Your task to perform on an android device: Show the shopping cart on amazon.com. Search for "jbl charge 4" on amazon.com, select the first entry, add it to the cart, then select checkout. Image 0: 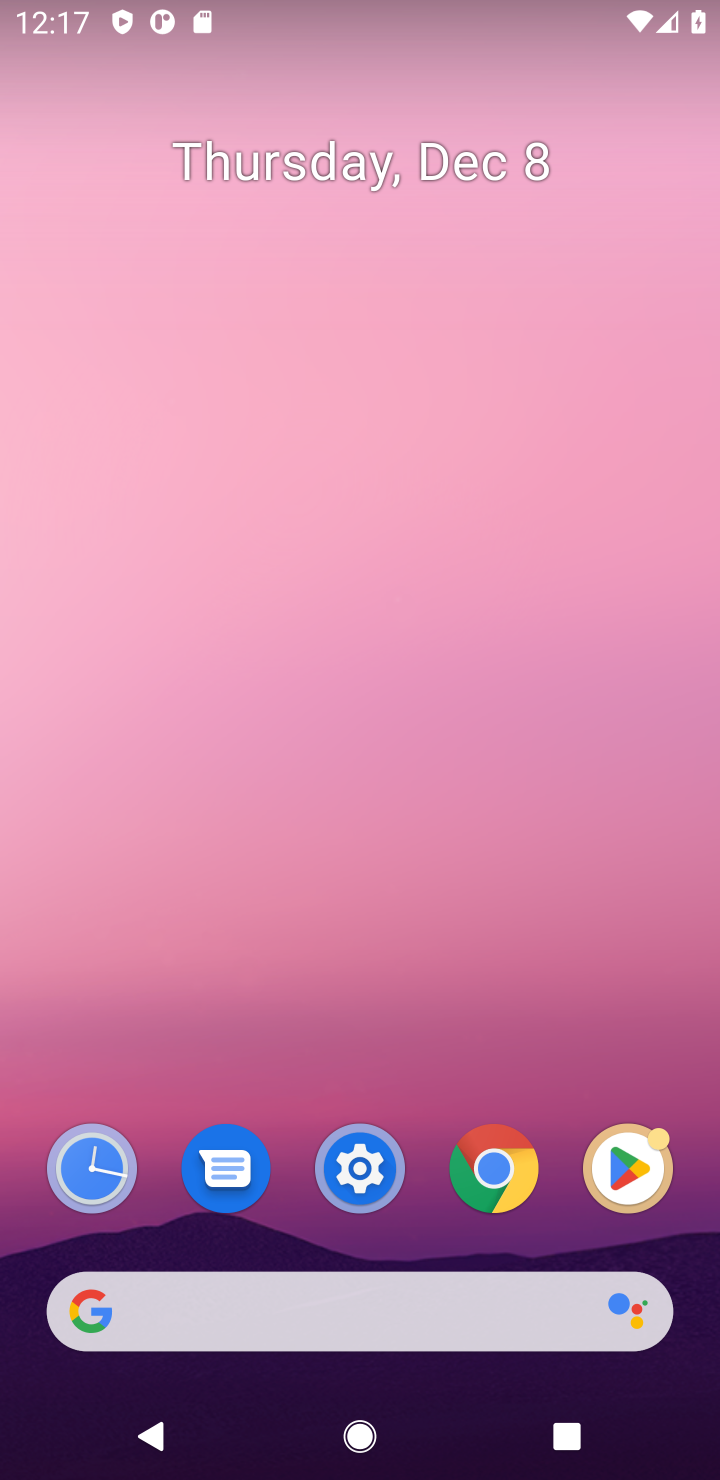
Step 0: drag from (360, 1254) to (380, 201)
Your task to perform on an android device: Show the shopping cart on amazon.com. Search for "jbl charge 4" on amazon.com, select the first entry, add it to the cart, then select checkout. Image 1: 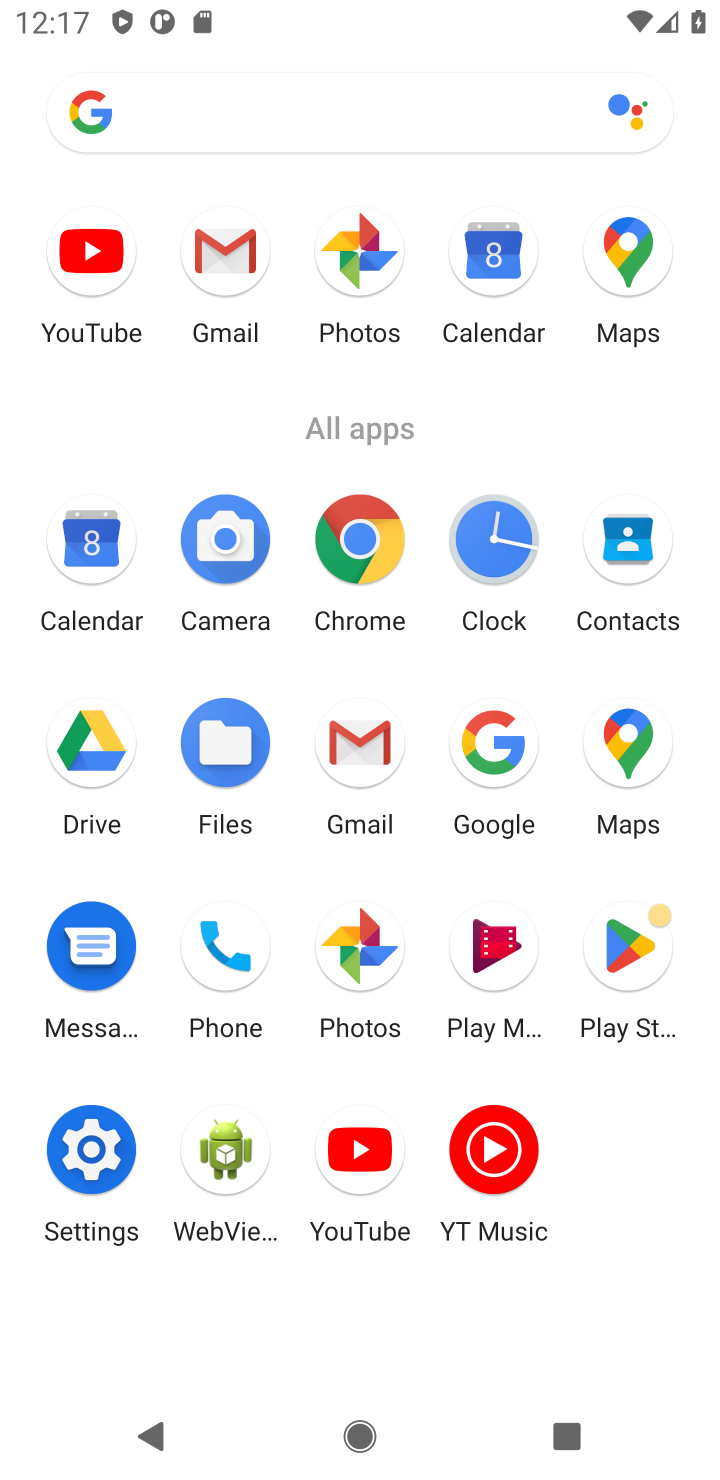
Step 1: click (490, 762)
Your task to perform on an android device: Show the shopping cart on amazon.com. Search for "jbl charge 4" on amazon.com, select the first entry, add it to the cart, then select checkout. Image 2: 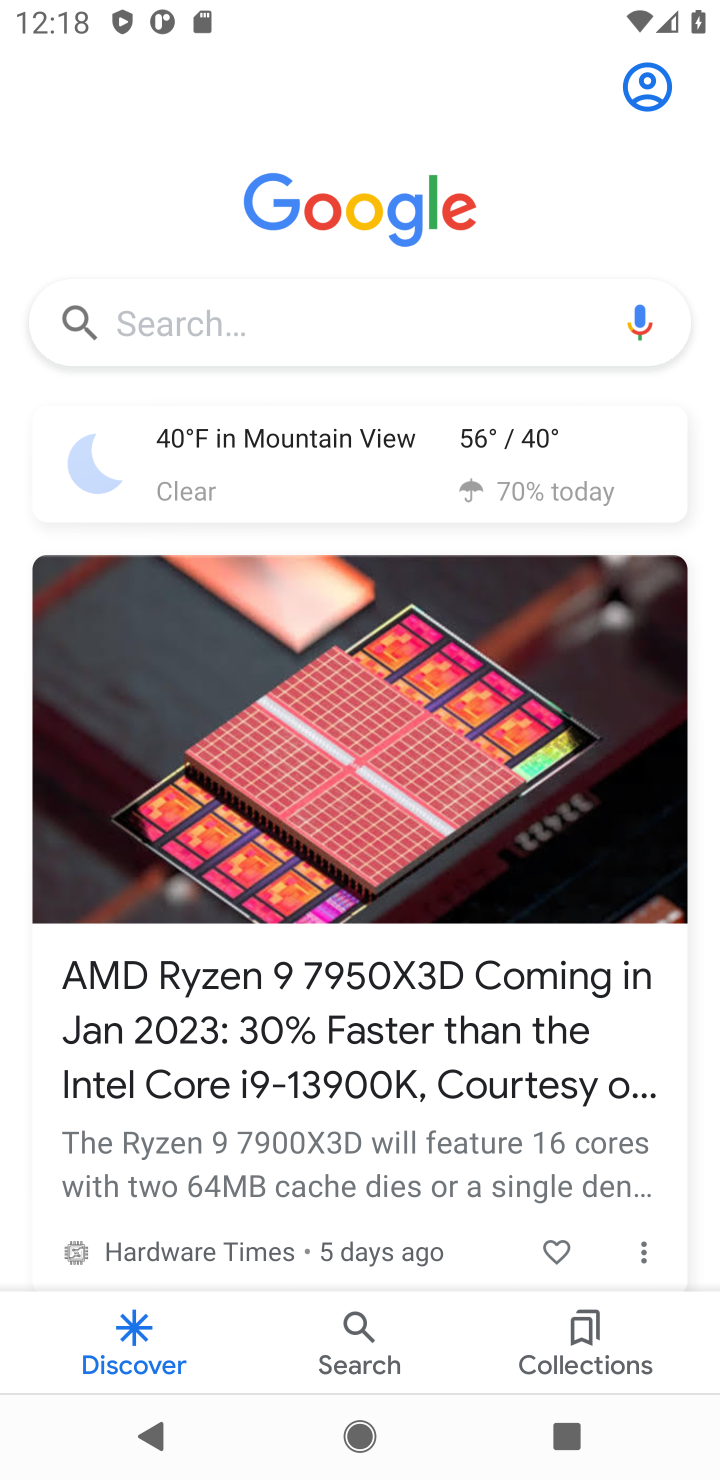
Step 2: click (363, 304)
Your task to perform on an android device: Show the shopping cart on amazon.com. Search for "jbl charge 4" on amazon.com, select the first entry, add it to the cart, then select checkout. Image 3: 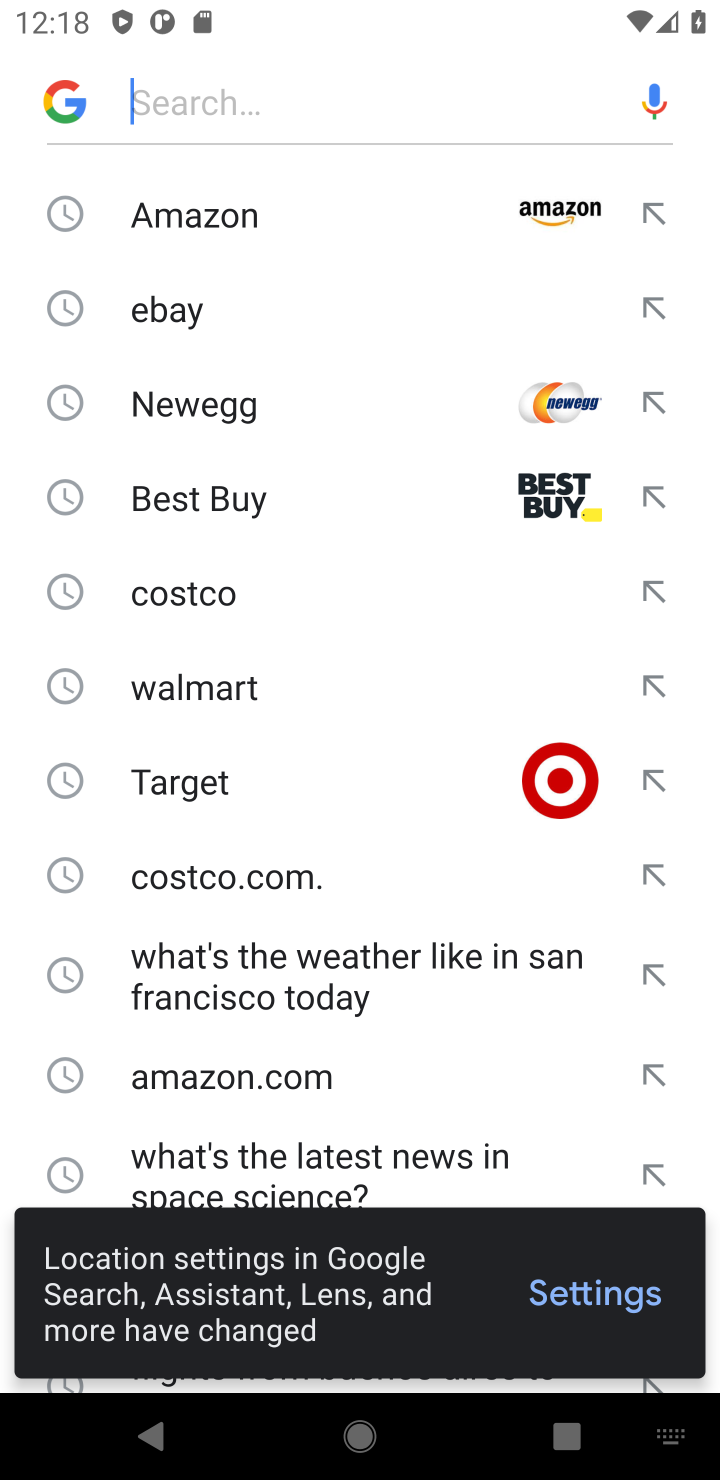
Step 3: click (233, 223)
Your task to perform on an android device: Show the shopping cart on amazon.com. Search for "jbl charge 4" on amazon.com, select the first entry, add it to the cart, then select checkout. Image 4: 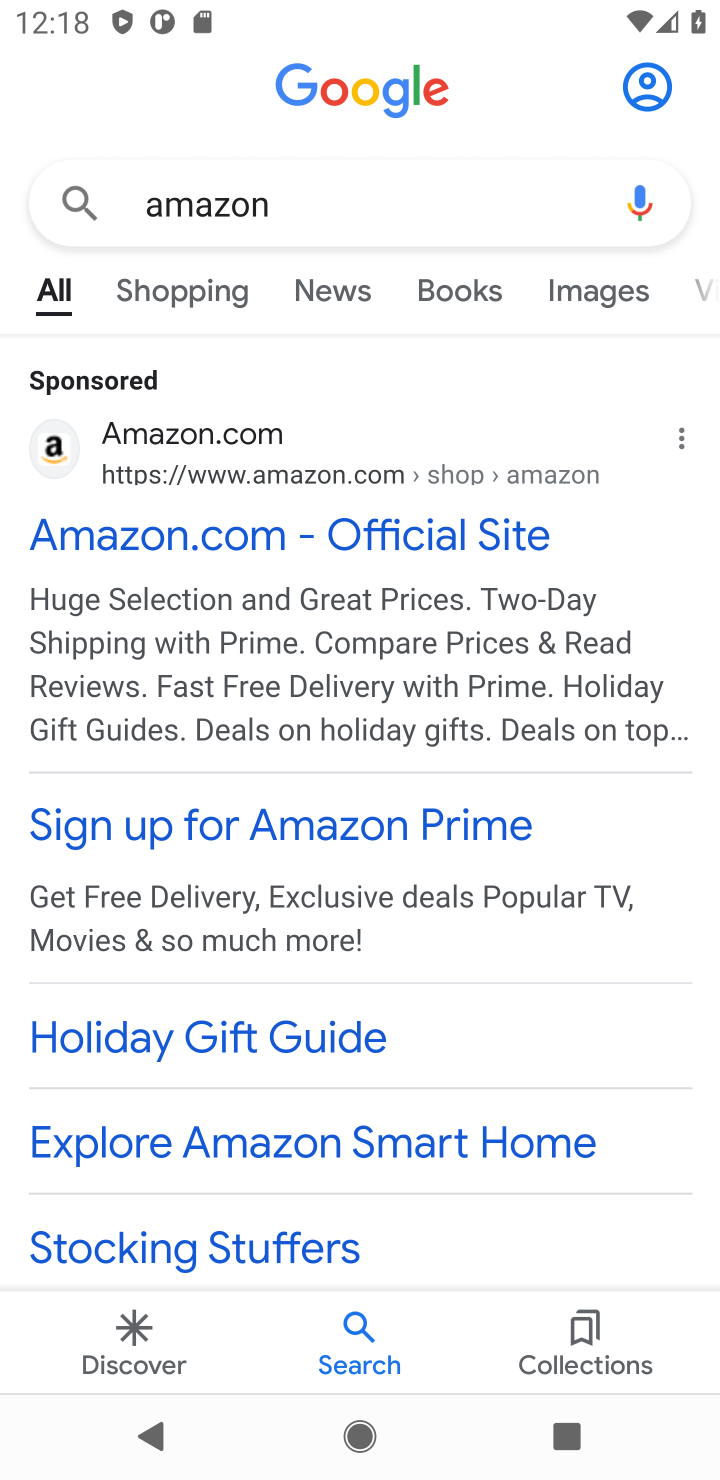
Step 4: click (266, 534)
Your task to perform on an android device: Show the shopping cart on amazon.com. Search for "jbl charge 4" on amazon.com, select the first entry, add it to the cart, then select checkout. Image 5: 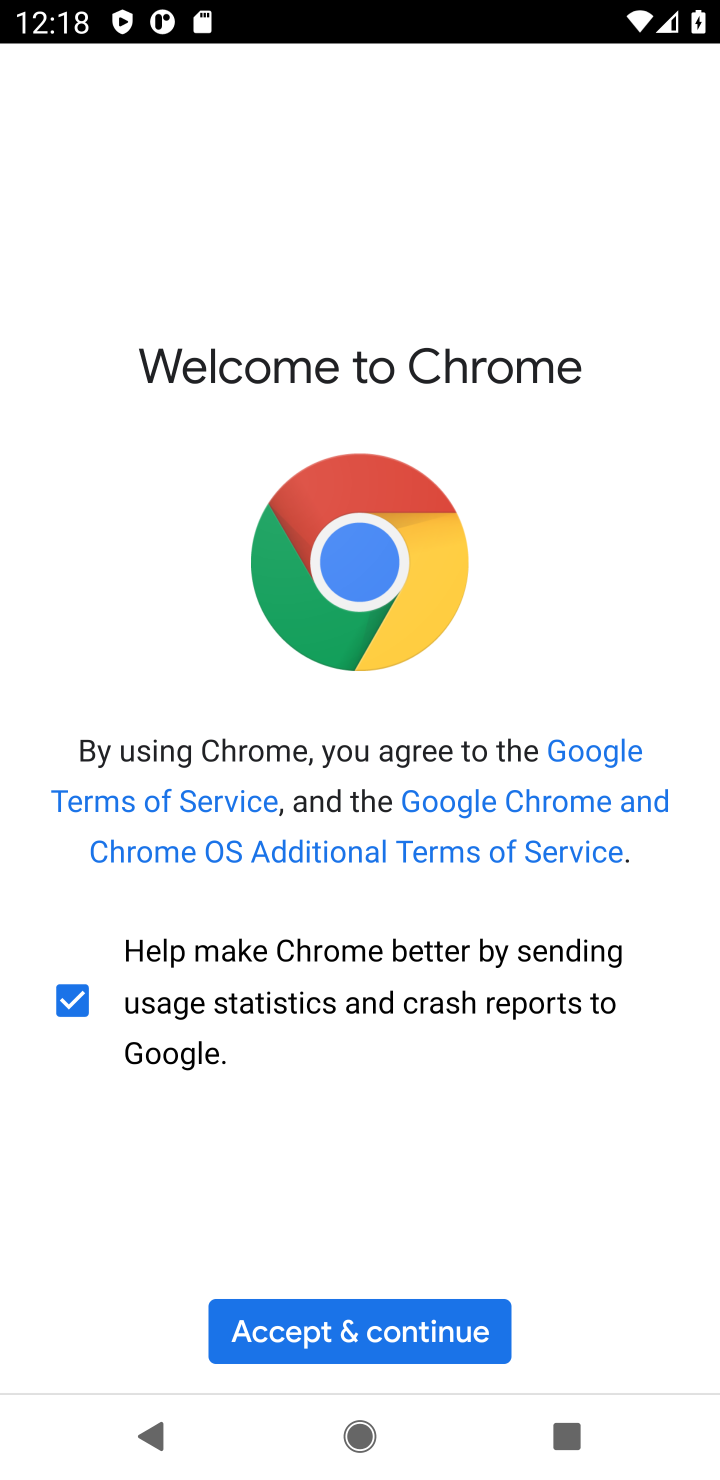
Step 5: click (322, 1328)
Your task to perform on an android device: Show the shopping cart on amazon.com. Search for "jbl charge 4" on amazon.com, select the first entry, add it to the cart, then select checkout. Image 6: 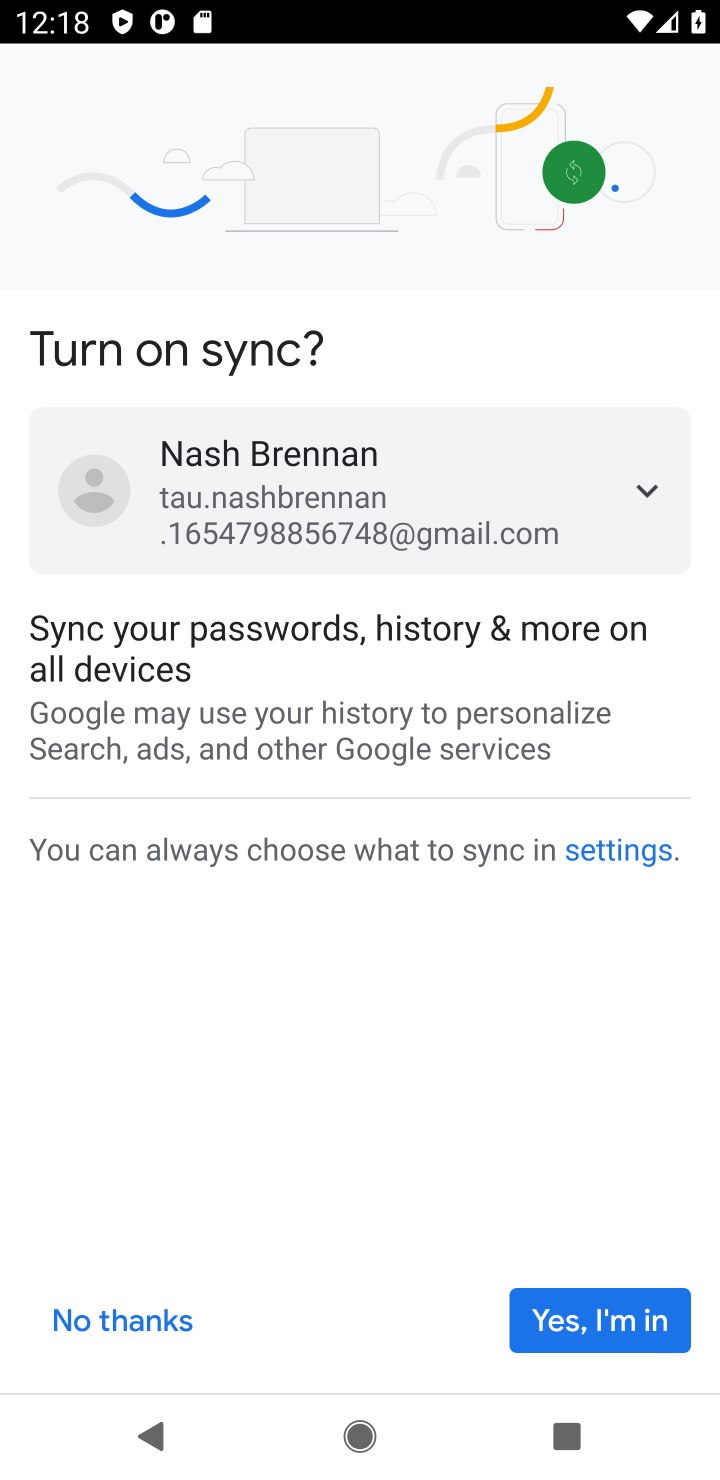
Step 6: click (611, 1324)
Your task to perform on an android device: Show the shopping cart on amazon.com. Search for "jbl charge 4" on amazon.com, select the first entry, add it to the cart, then select checkout. Image 7: 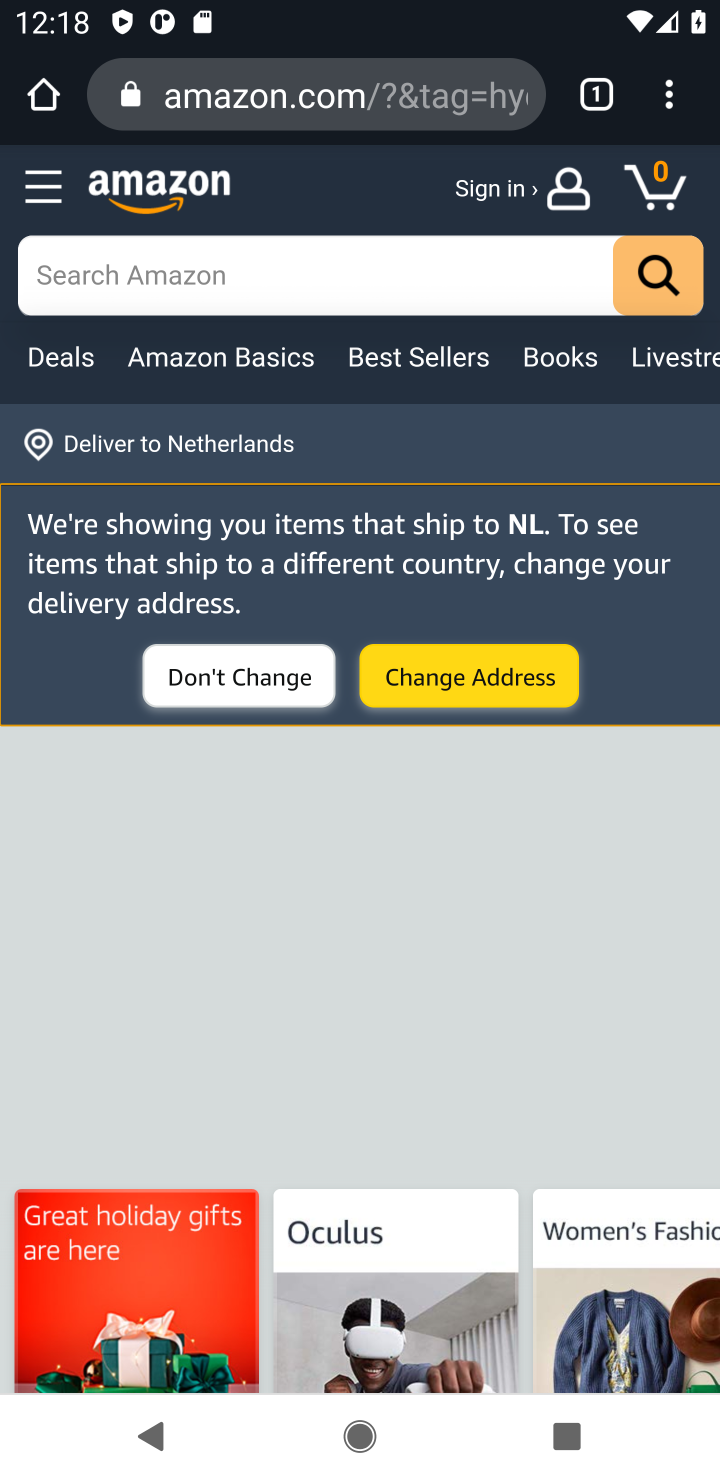
Step 7: click (242, 283)
Your task to perform on an android device: Show the shopping cart on amazon.com. Search for "jbl charge 4" on amazon.com, select the first entry, add it to the cart, then select checkout. Image 8: 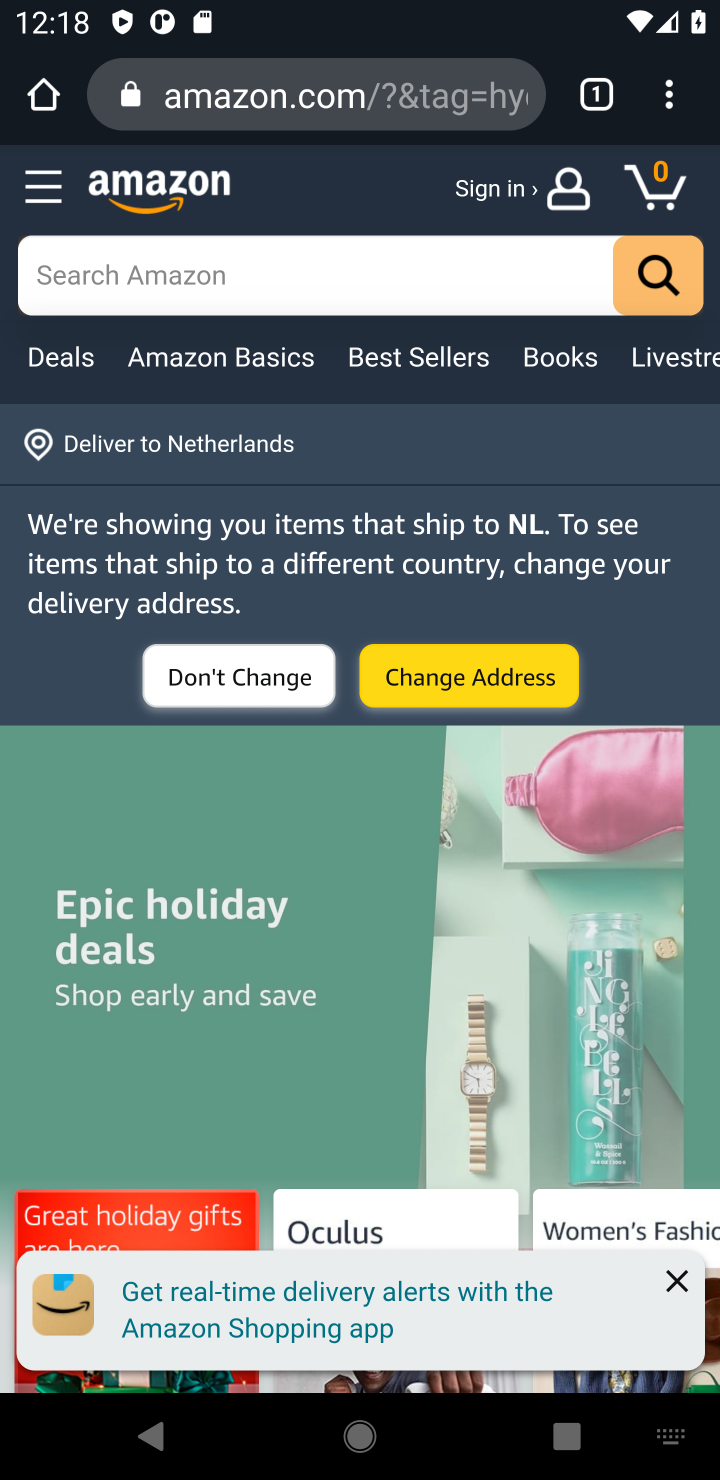
Step 8: type "jbl charge 4"
Your task to perform on an android device: Show the shopping cart on amazon.com. Search for "jbl charge 4" on amazon.com, select the first entry, add it to the cart, then select checkout. Image 9: 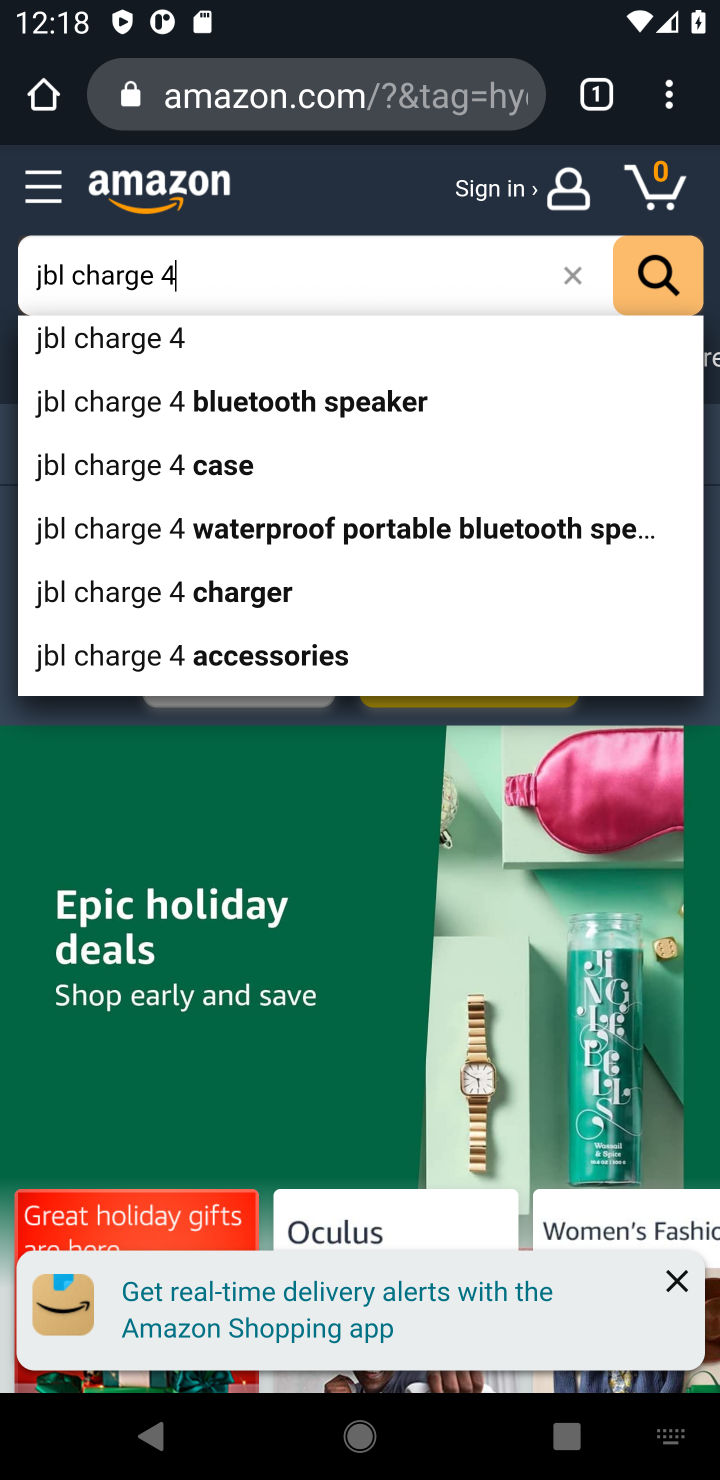
Step 9: click (122, 328)
Your task to perform on an android device: Show the shopping cart on amazon.com. Search for "jbl charge 4" on amazon.com, select the first entry, add it to the cart, then select checkout. Image 10: 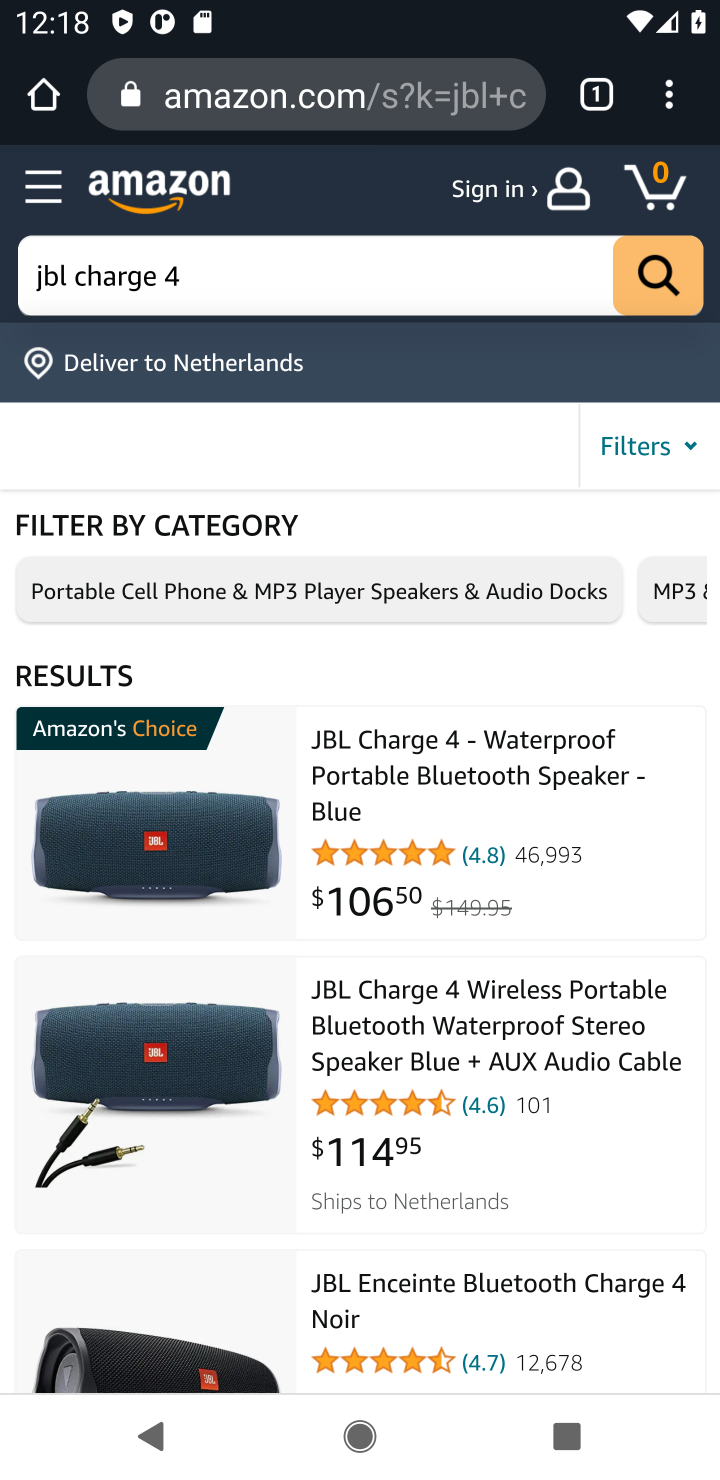
Step 10: click (435, 832)
Your task to perform on an android device: Show the shopping cart on amazon.com. Search for "jbl charge 4" on amazon.com, select the first entry, add it to the cart, then select checkout. Image 11: 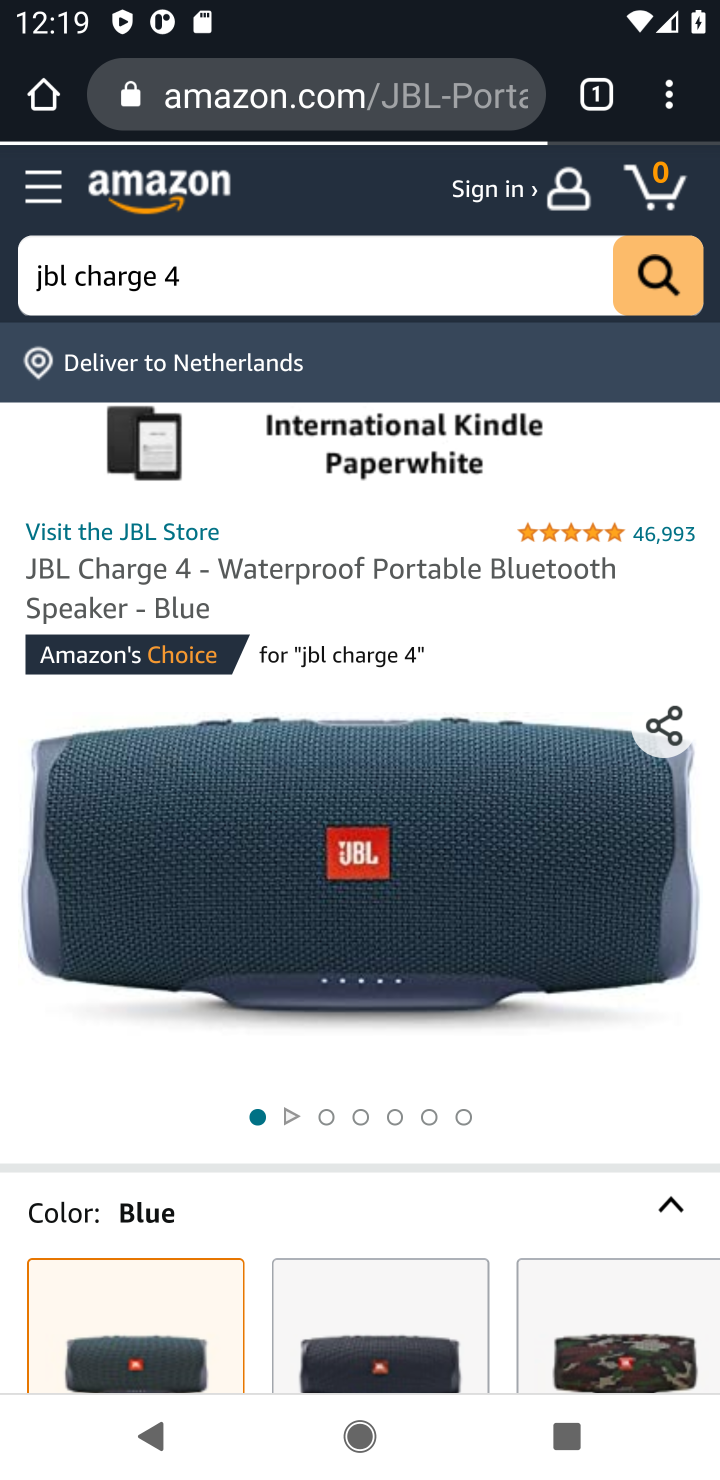
Step 11: task complete